Your task to perform on an android device: turn off priority inbox in the gmail app Image 0: 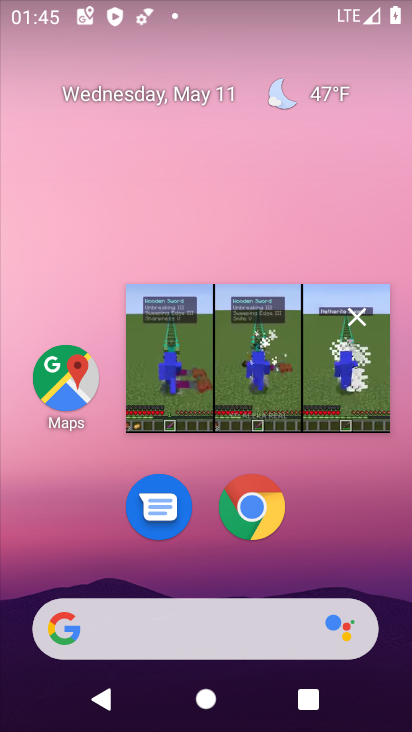
Step 0: click (301, 560)
Your task to perform on an android device: turn off priority inbox in the gmail app Image 1: 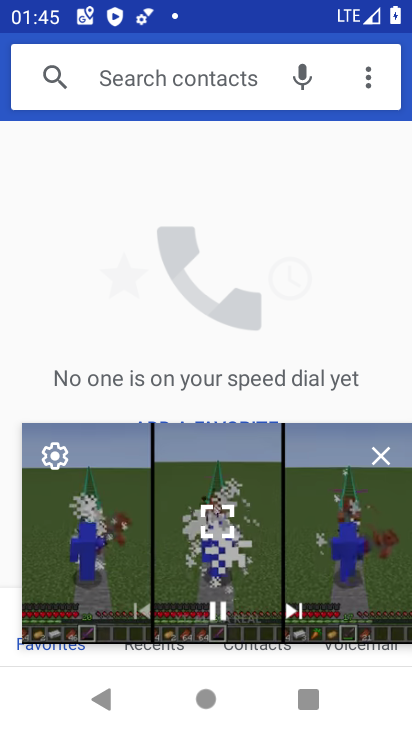
Step 1: click (384, 453)
Your task to perform on an android device: turn off priority inbox in the gmail app Image 2: 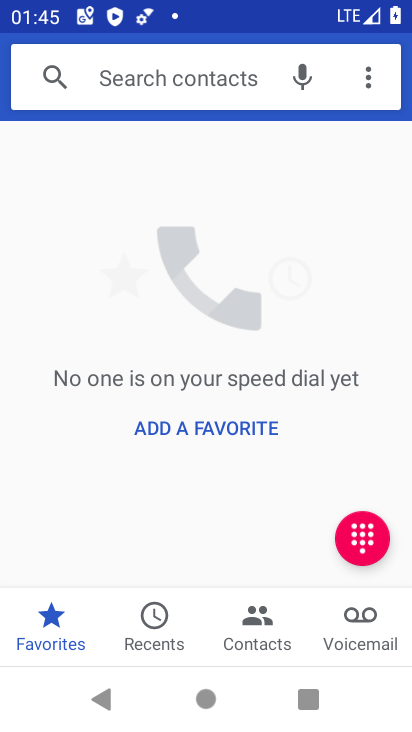
Step 2: press home button
Your task to perform on an android device: turn off priority inbox in the gmail app Image 3: 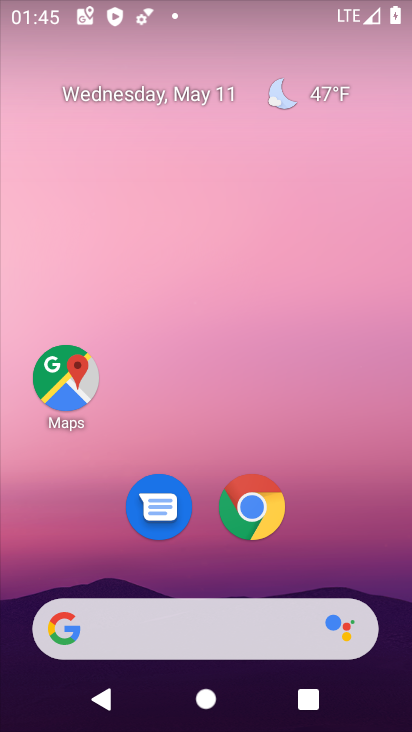
Step 3: drag from (323, 527) to (196, 100)
Your task to perform on an android device: turn off priority inbox in the gmail app Image 4: 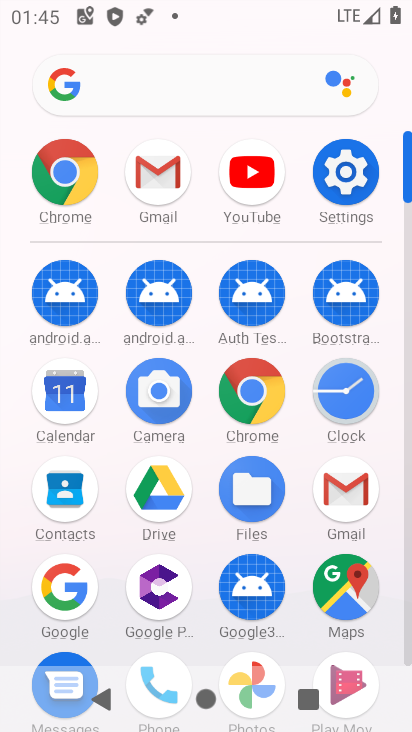
Step 4: click (161, 171)
Your task to perform on an android device: turn off priority inbox in the gmail app Image 5: 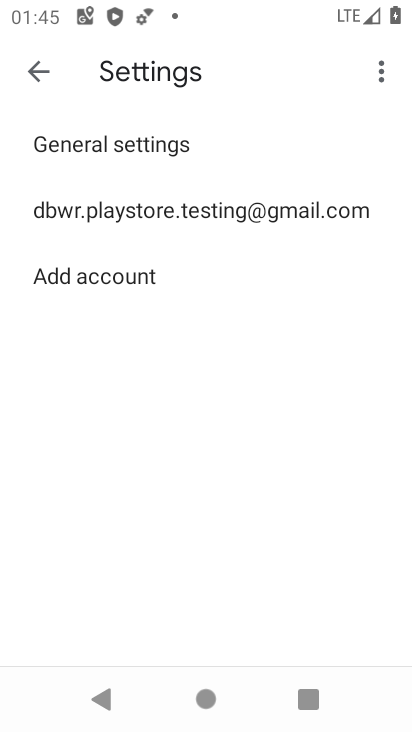
Step 5: click (112, 207)
Your task to perform on an android device: turn off priority inbox in the gmail app Image 6: 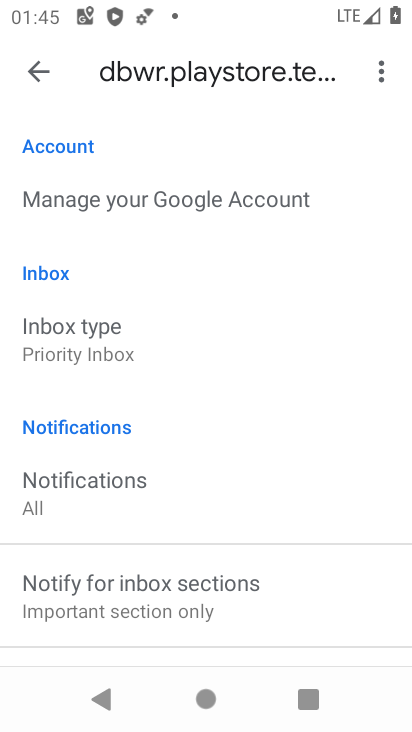
Step 6: click (69, 328)
Your task to perform on an android device: turn off priority inbox in the gmail app Image 7: 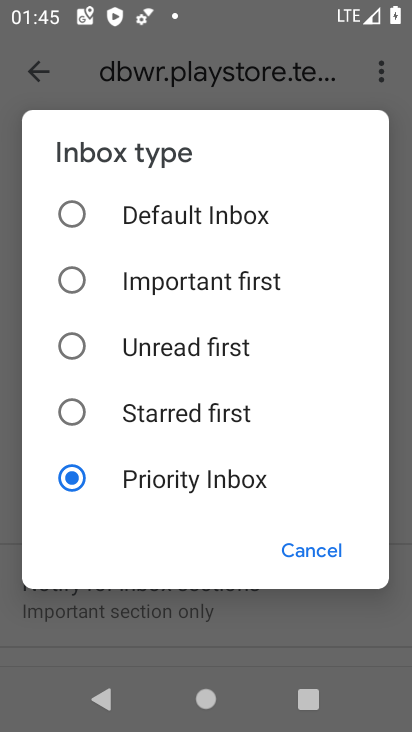
Step 7: click (71, 203)
Your task to perform on an android device: turn off priority inbox in the gmail app Image 8: 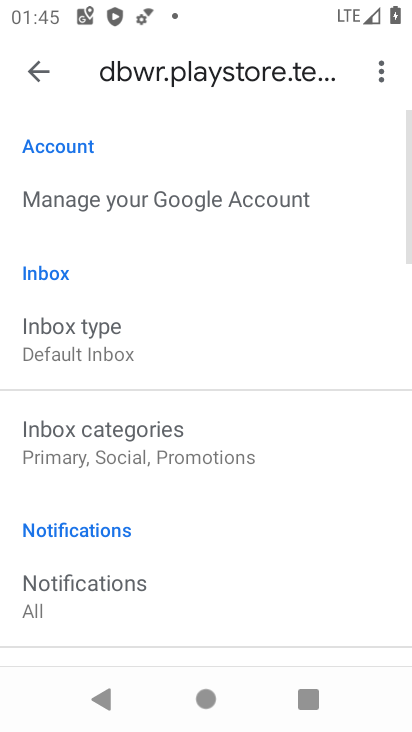
Step 8: task complete